Your task to perform on an android device: find snoozed emails in the gmail app Image 0: 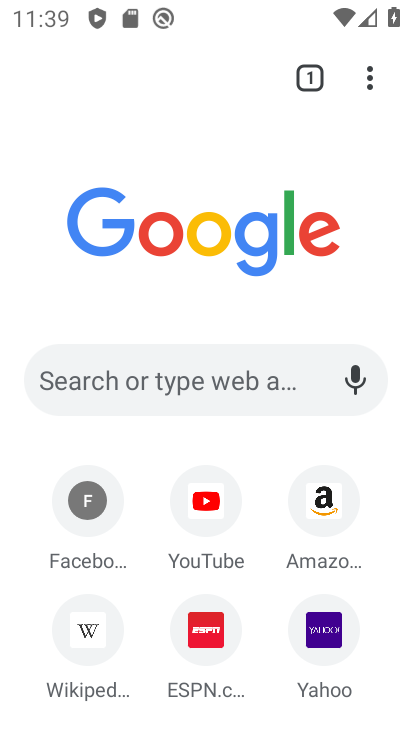
Step 0: press home button
Your task to perform on an android device: find snoozed emails in the gmail app Image 1: 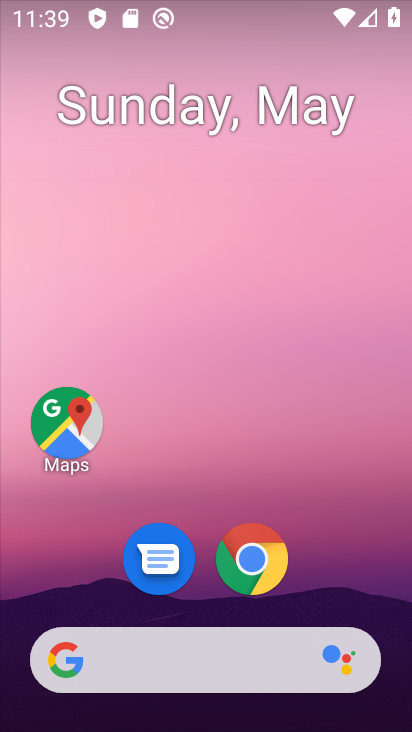
Step 1: drag from (255, 721) to (176, 18)
Your task to perform on an android device: find snoozed emails in the gmail app Image 2: 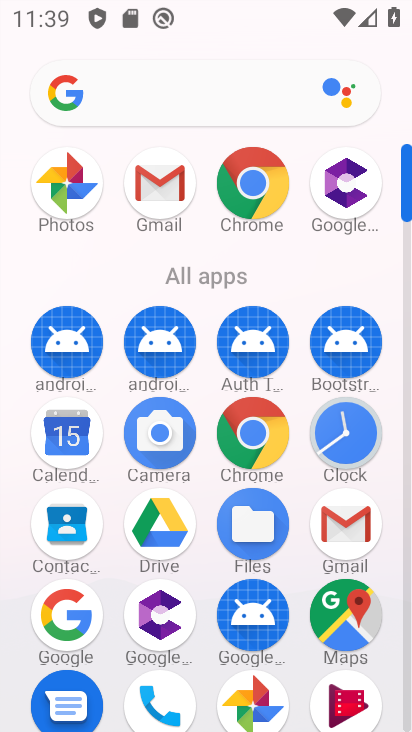
Step 2: click (167, 187)
Your task to perform on an android device: find snoozed emails in the gmail app Image 3: 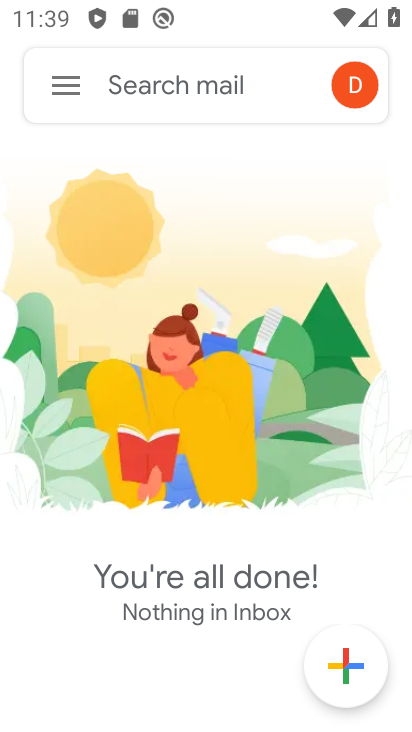
Step 3: click (54, 98)
Your task to perform on an android device: find snoozed emails in the gmail app Image 4: 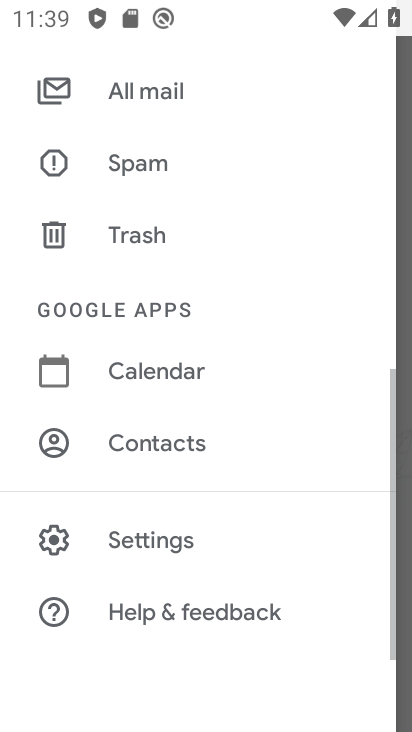
Step 4: drag from (212, 168) to (227, 720)
Your task to perform on an android device: find snoozed emails in the gmail app Image 5: 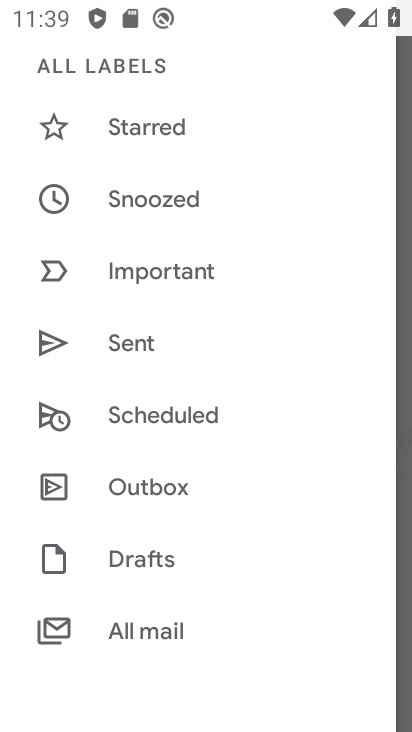
Step 5: click (207, 191)
Your task to perform on an android device: find snoozed emails in the gmail app Image 6: 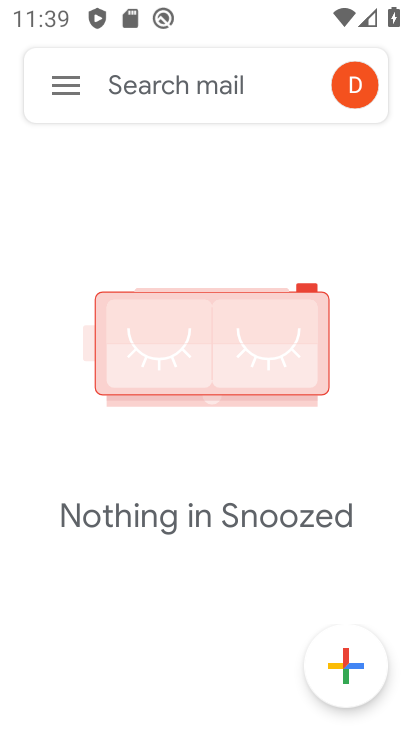
Step 6: task complete